Your task to perform on an android device: Search for vegetarian restaurants on Maps Image 0: 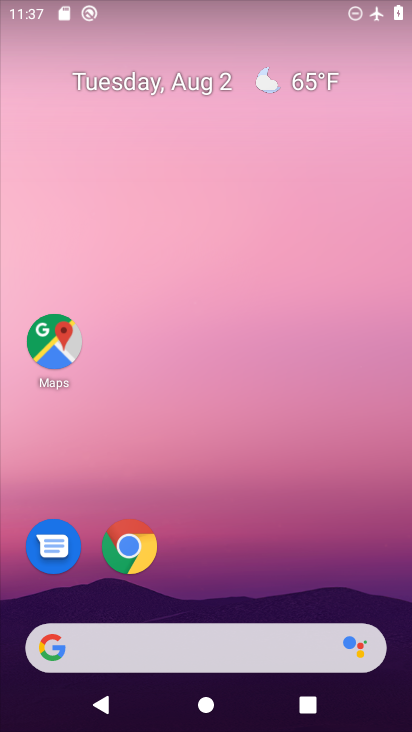
Step 0: click (29, 347)
Your task to perform on an android device: Search for vegetarian restaurants on Maps Image 1: 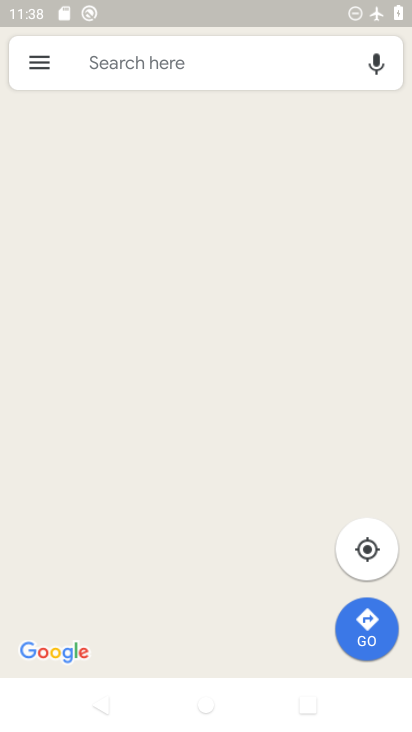
Step 1: click (152, 66)
Your task to perform on an android device: Search for vegetarian restaurants on Maps Image 2: 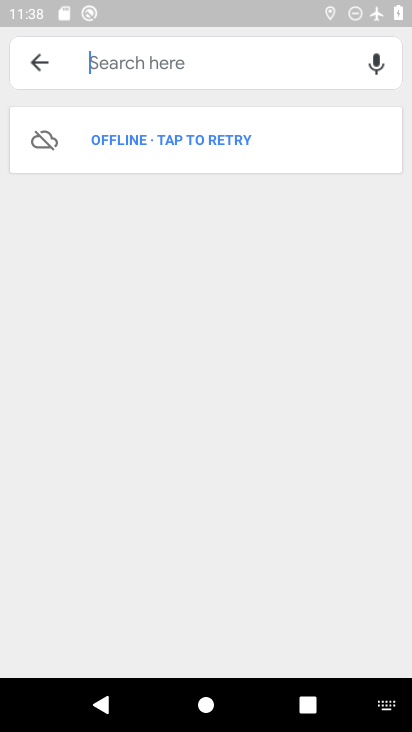
Step 2: type "vegetarian restaurants"
Your task to perform on an android device: Search for vegetarian restaurants on Maps Image 3: 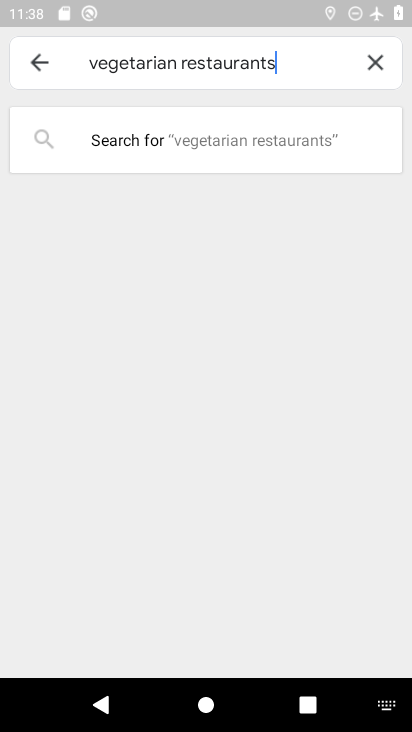
Step 3: type ""
Your task to perform on an android device: Search for vegetarian restaurants on Maps Image 4: 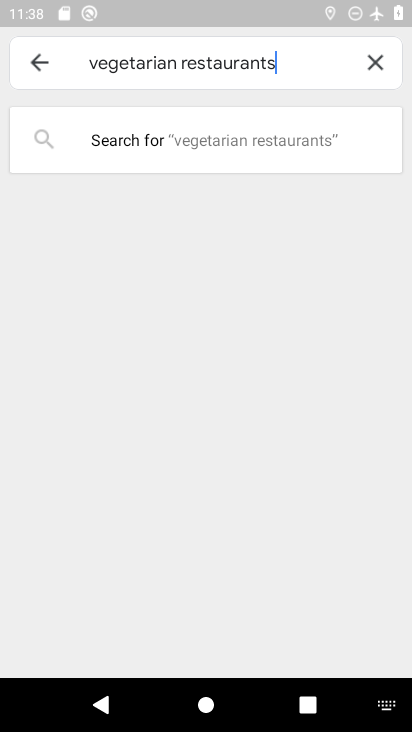
Step 4: click (239, 151)
Your task to perform on an android device: Search for vegetarian restaurants on Maps Image 5: 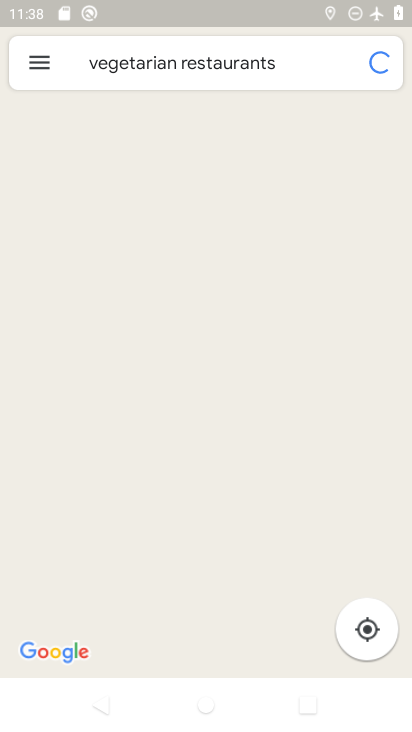
Step 5: task complete